Your task to perform on an android device: add a label to a message in the gmail app Image 0: 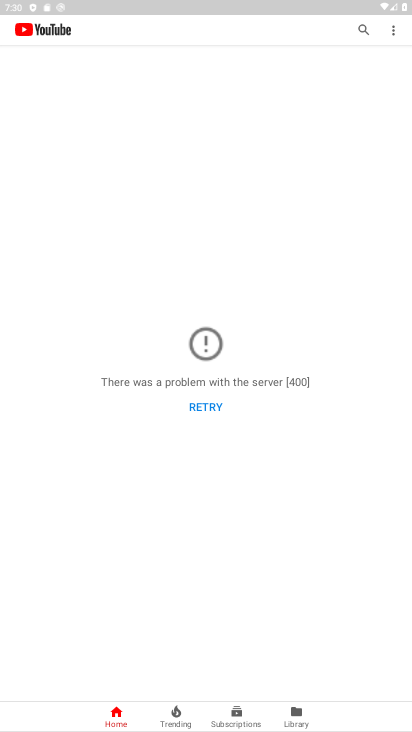
Step 0: drag from (215, 586) to (289, 167)
Your task to perform on an android device: add a label to a message in the gmail app Image 1: 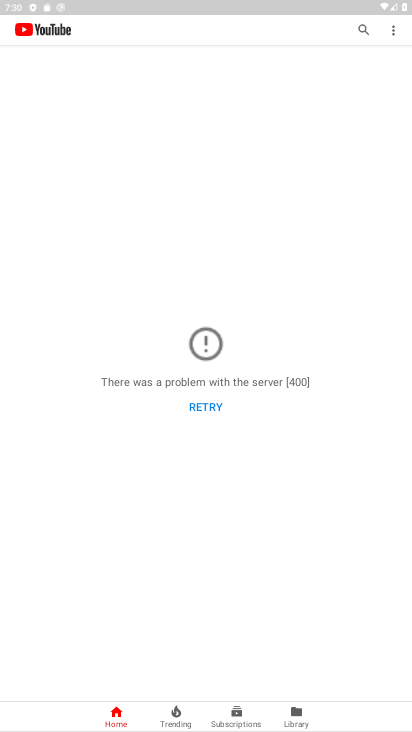
Step 1: drag from (214, 426) to (263, 202)
Your task to perform on an android device: add a label to a message in the gmail app Image 2: 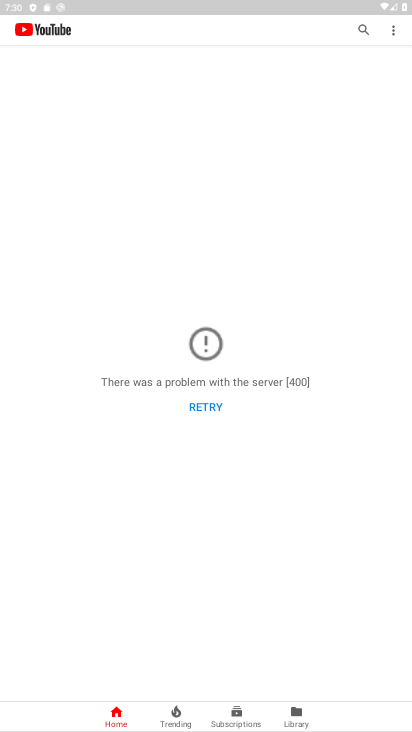
Step 2: press home button
Your task to perform on an android device: add a label to a message in the gmail app Image 3: 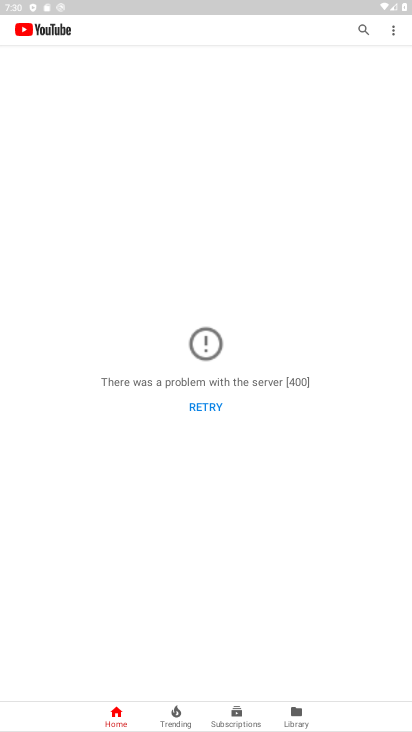
Step 3: press home button
Your task to perform on an android device: add a label to a message in the gmail app Image 4: 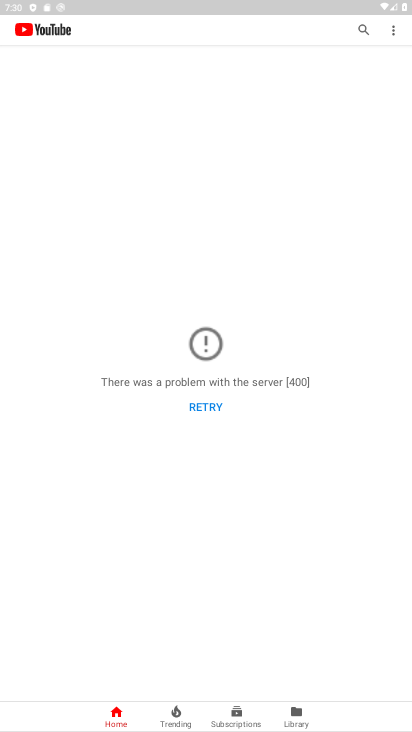
Step 4: drag from (227, 212) to (216, 141)
Your task to perform on an android device: add a label to a message in the gmail app Image 5: 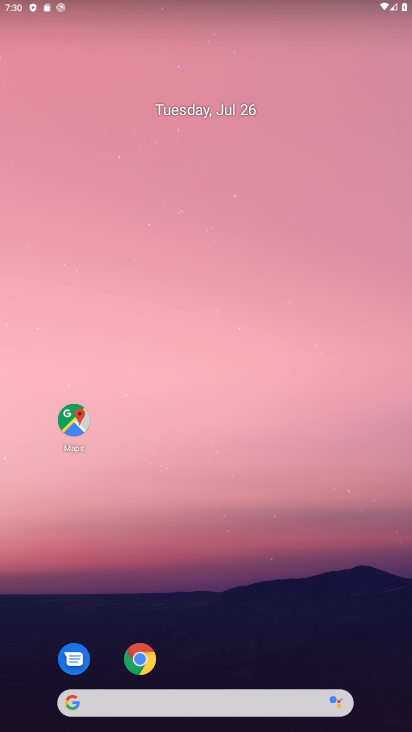
Step 5: drag from (213, 449) to (296, 151)
Your task to perform on an android device: add a label to a message in the gmail app Image 6: 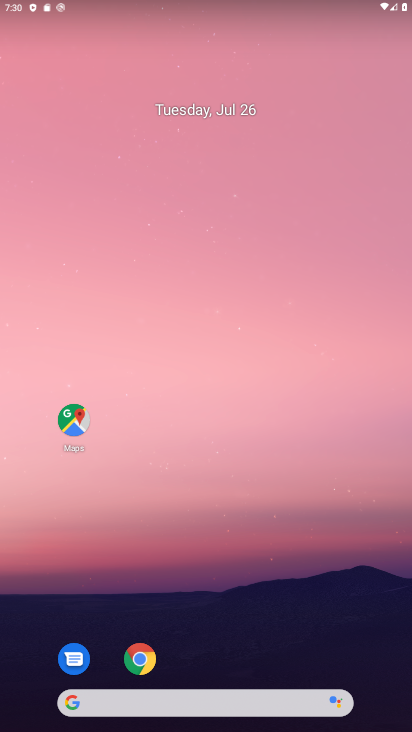
Step 6: drag from (191, 627) to (203, 98)
Your task to perform on an android device: add a label to a message in the gmail app Image 7: 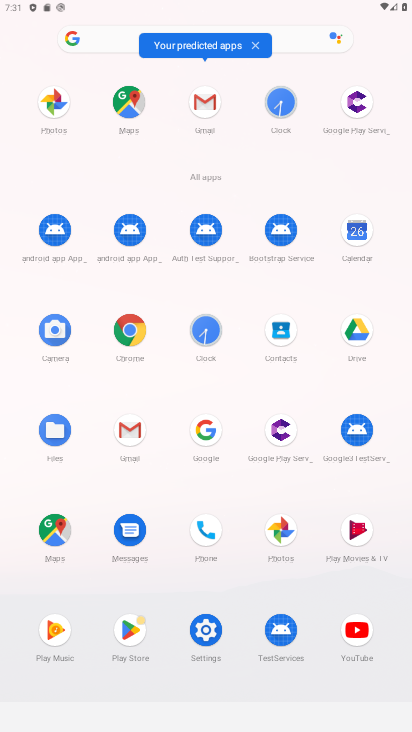
Step 7: click (120, 424)
Your task to perform on an android device: add a label to a message in the gmail app Image 8: 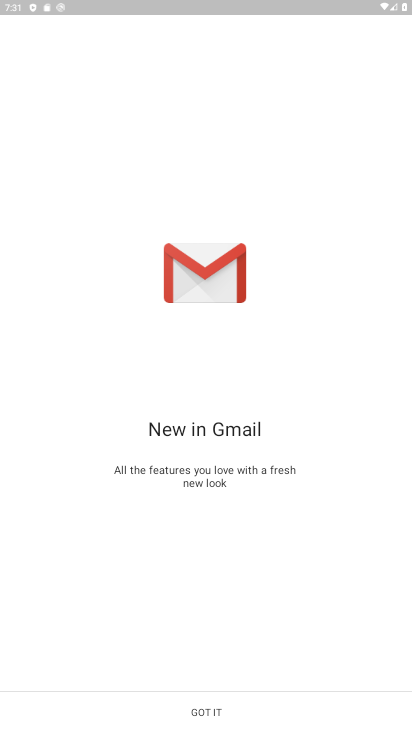
Step 8: click (219, 706)
Your task to perform on an android device: add a label to a message in the gmail app Image 9: 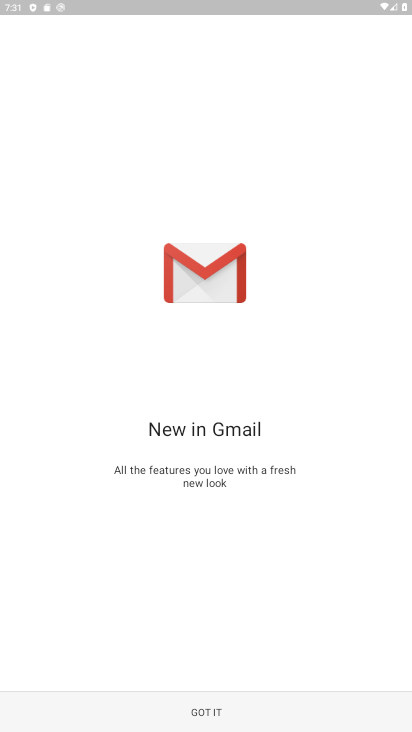
Step 9: click (219, 706)
Your task to perform on an android device: add a label to a message in the gmail app Image 10: 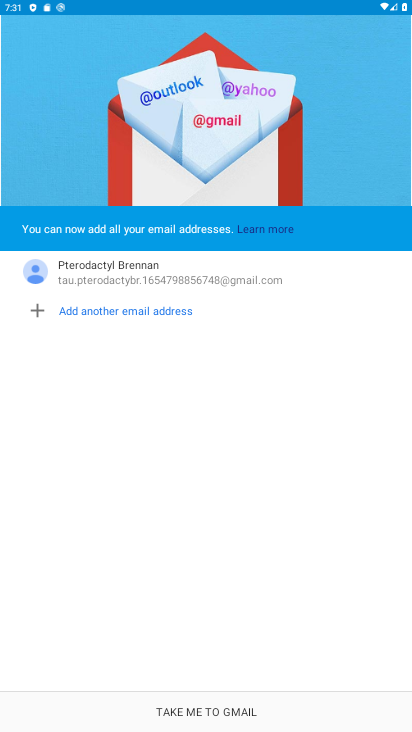
Step 10: click (223, 706)
Your task to perform on an android device: add a label to a message in the gmail app Image 11: 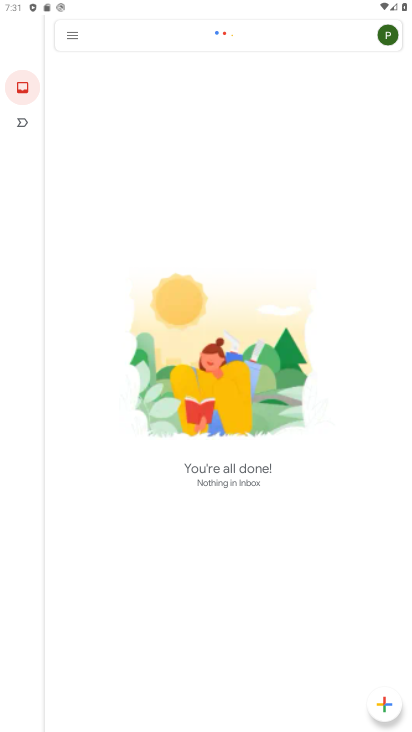
Step 11: task complete